Your task to perform on an android device: toggle improve location accuracy Image 0: 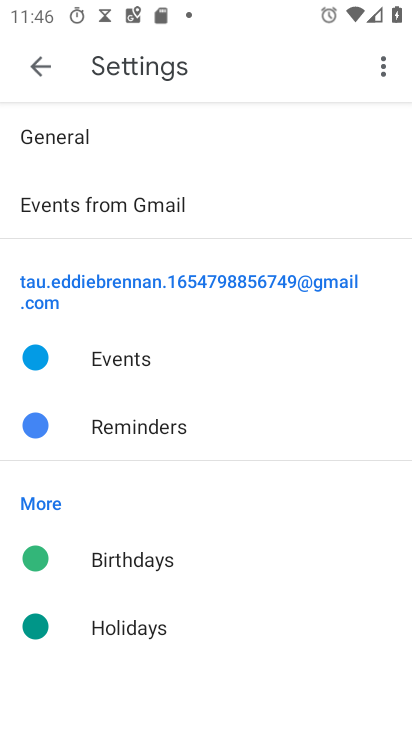
Step 0: press home button
Your task to perform on an android device: toggle improve location accuracy Image 1: 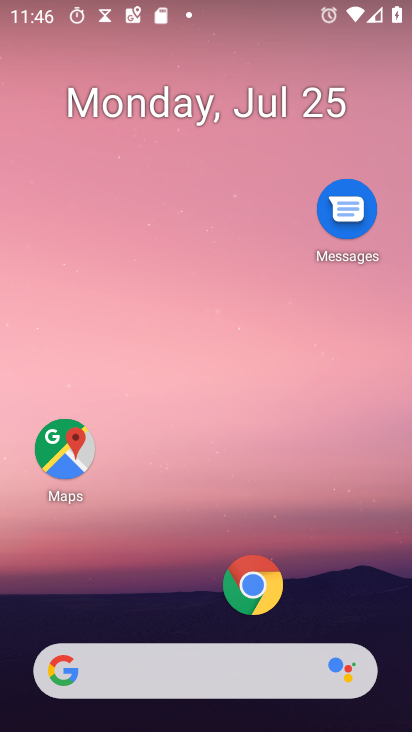
Step 1: drag from (179, 673) to (283, 71)
Your task to perform on an android device: toggle improve location accuracy Image 2: 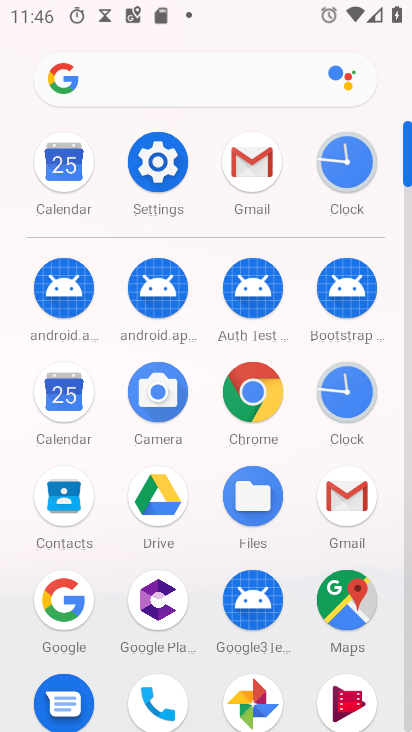
Step 2: click (167, 160)
Your task to perform on an android device: toggle improve location accuracy Image 3: 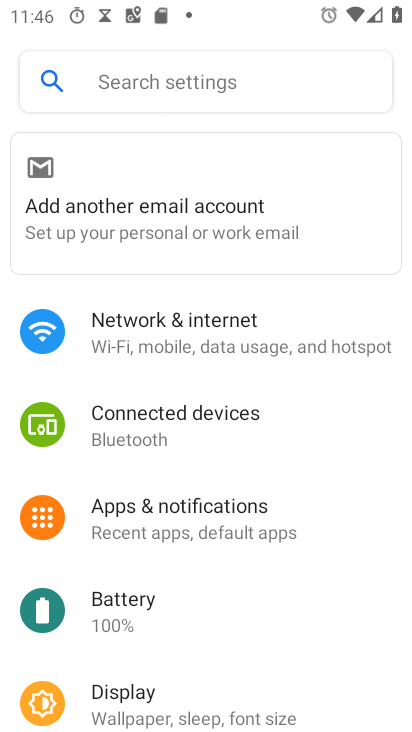
Step 3: drag from (219, 623) to (317, 191)
Your task to perform on an android device: toggle improve location accuracy Image 4: 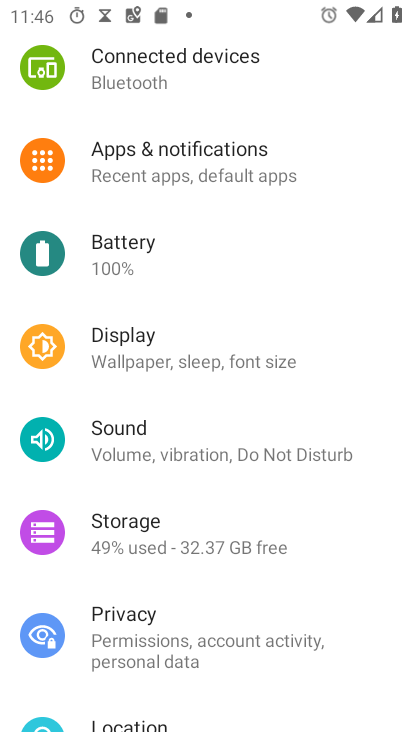
Step 4: drag from (245, 670) to (289, 411)
Your task to perform on an android device: toggle improve location accuracy Image 5: 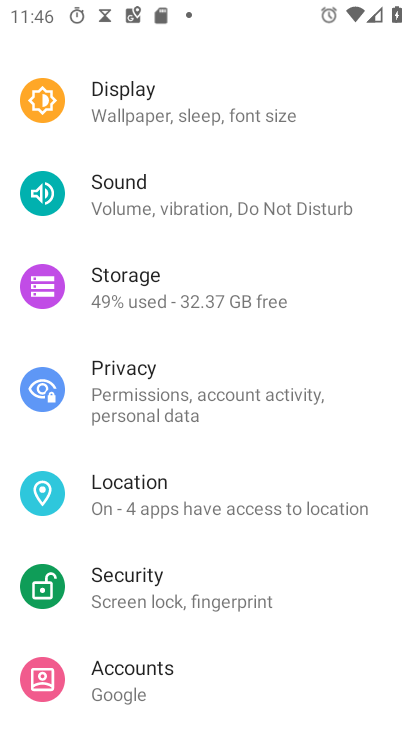
Step 5: click (150, 500)
Your task to perform on an android device: toggle improve location accuracy Image 6: 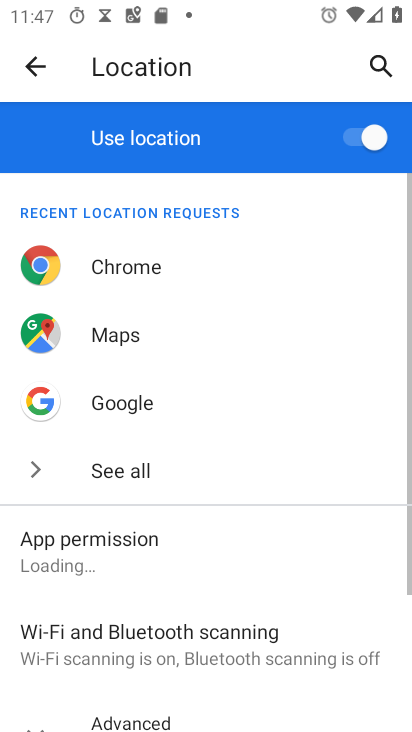
Step 6: drag from (228, 604) to (295, 273)
Your task to perform on an android device: toggle improve location accuracy Image 7: 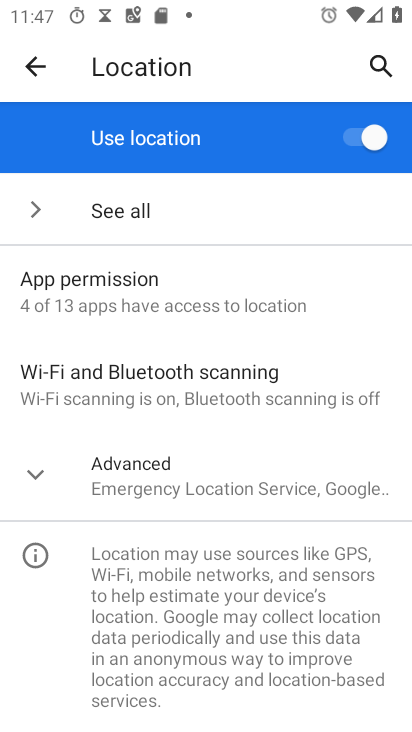
Step 7: click (125, 486)
Your task to perform on an android device: toggle improve location accuracy Image 8: 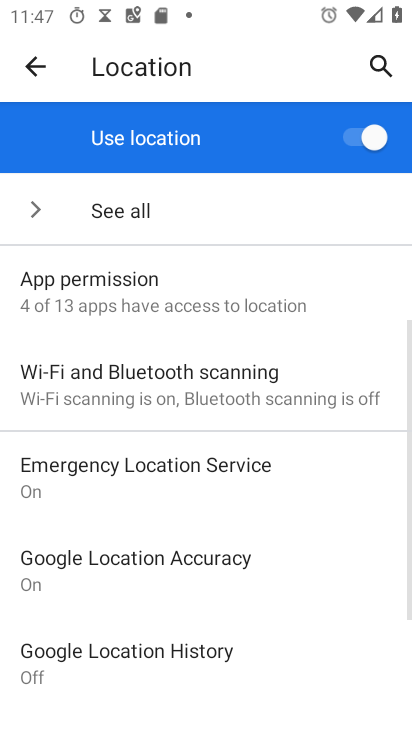
Step 8: drag from (328, 560) to (338, 345)
Your task to perform on an android device: toggle improve location accuracy Image 9: 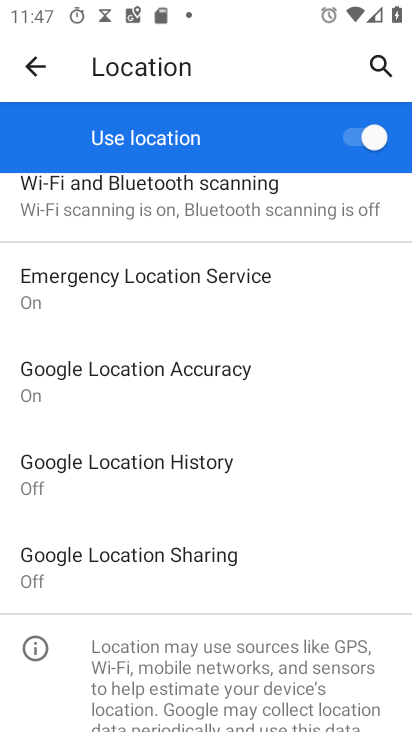
Step 9: click (146, 374)
Your task to perform on an android device: toggle improve location accuracy Image 10: 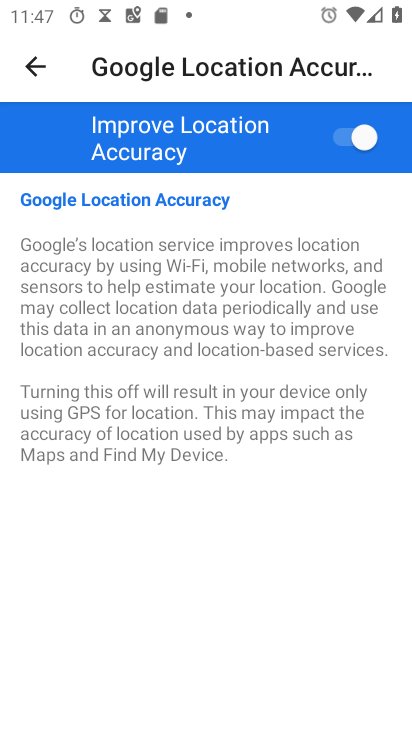
Step 10: click (345, 137)
Your task to perform on an android device: toggle improve location accuracy Image 11: 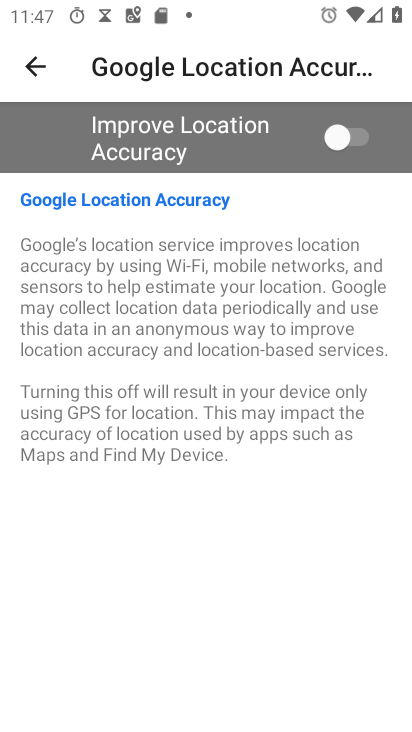
Step 11: task complete